Your task to perform on an android device: turn on translation in the chrome app Image 0: 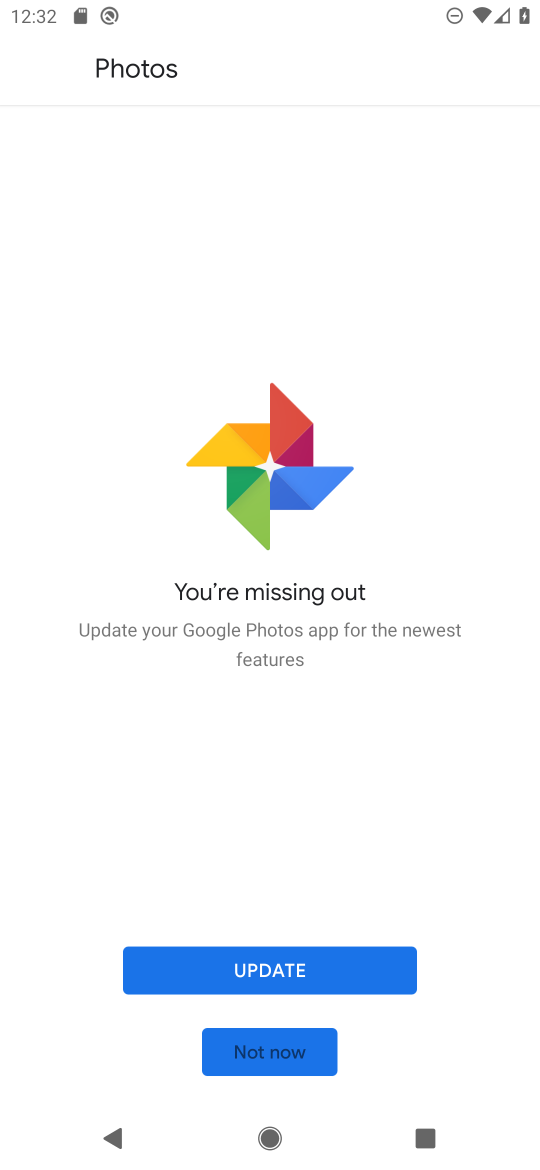
Step 0: press home button
Your task to perform on an android device: turn on translation in the chrome app Image 1: 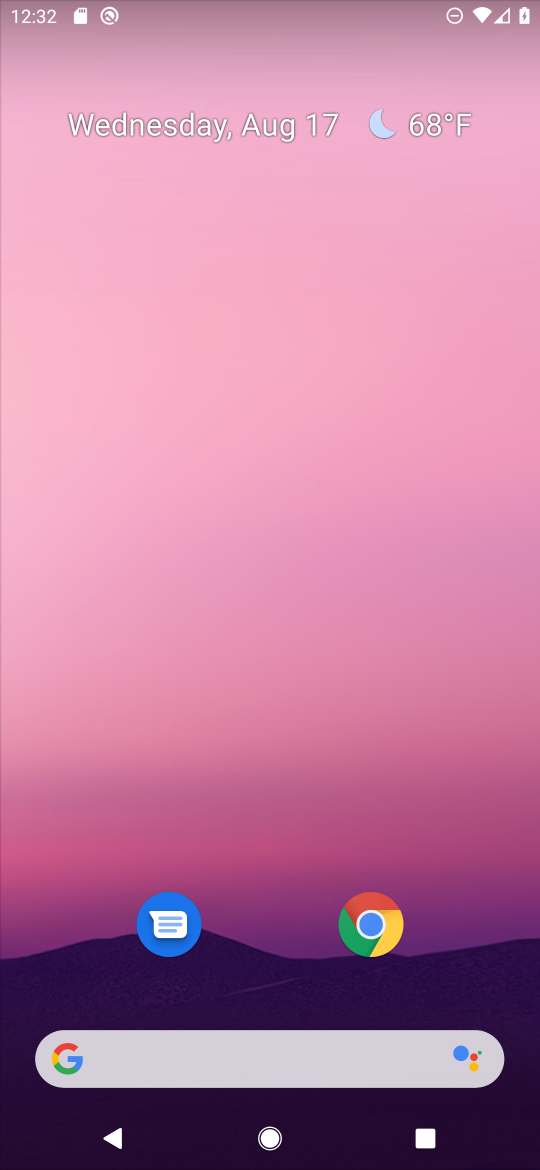
Step 1: click (362, 943)
Your task to perform on an android device: turn on translation in the chrome app Image 2: 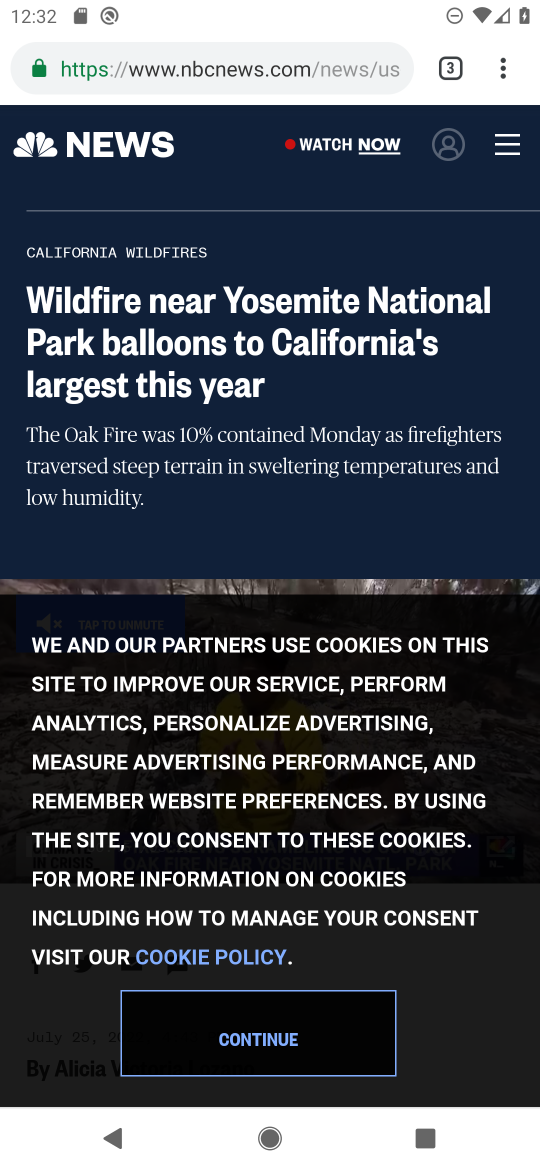
Step 2: click (510, 63)
Your task to perform on an android device: turn on translation in the chrome app Image 3: 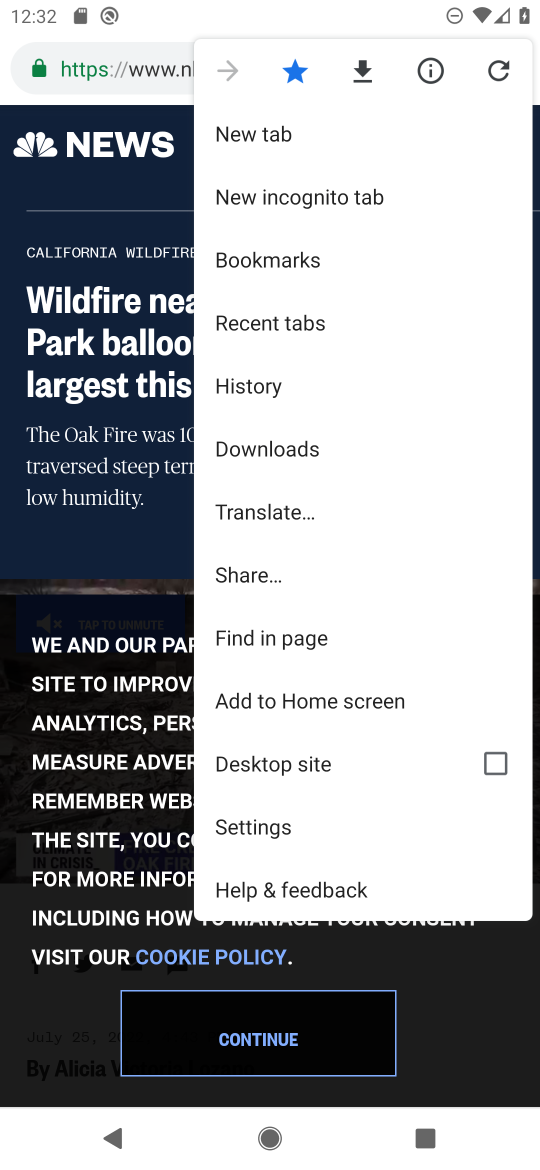
Step 3: click (319, 823)
Your task to perform on an android device: turn on translation in the chrome app Image 4: 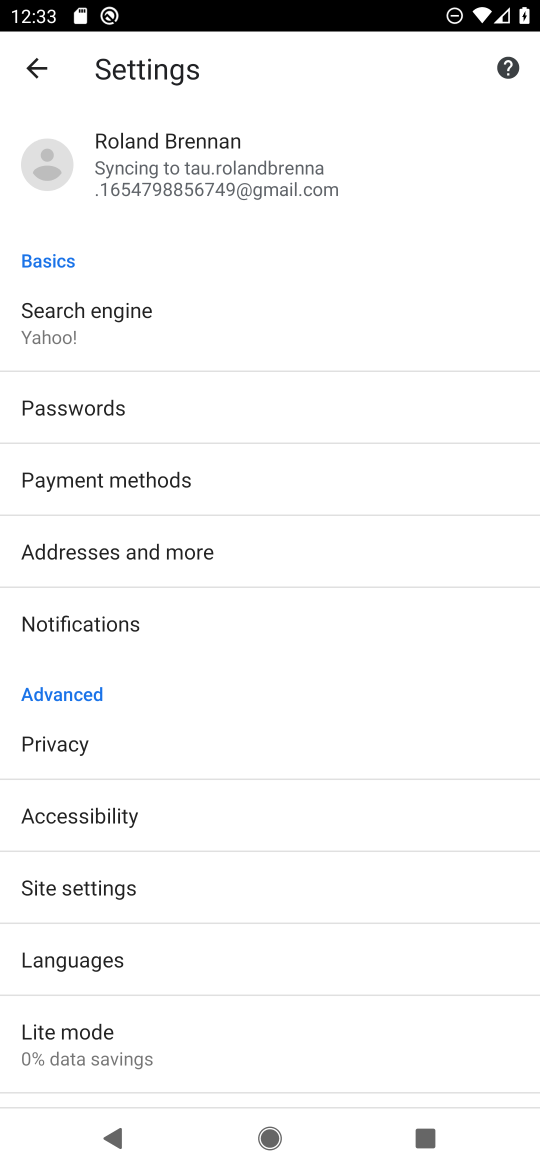
Step 4: click (233, 976)
Your task to perform on an android device: turn on translation in the chrome app Image 5: 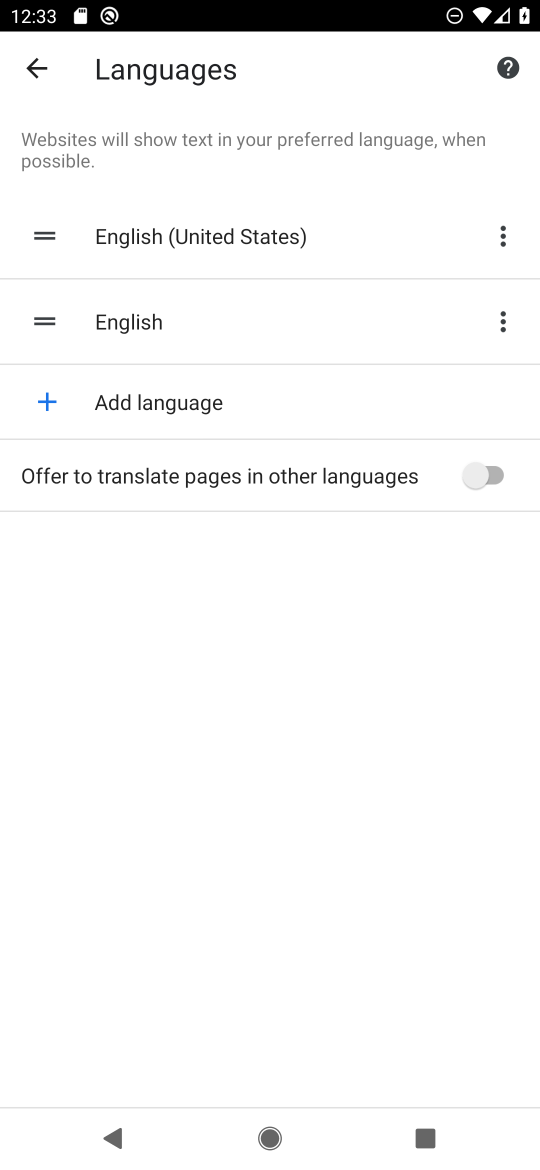
Step 5: click (497, 467)
Your task to perform on an android device: turn on translation in the chrome app Image 6: 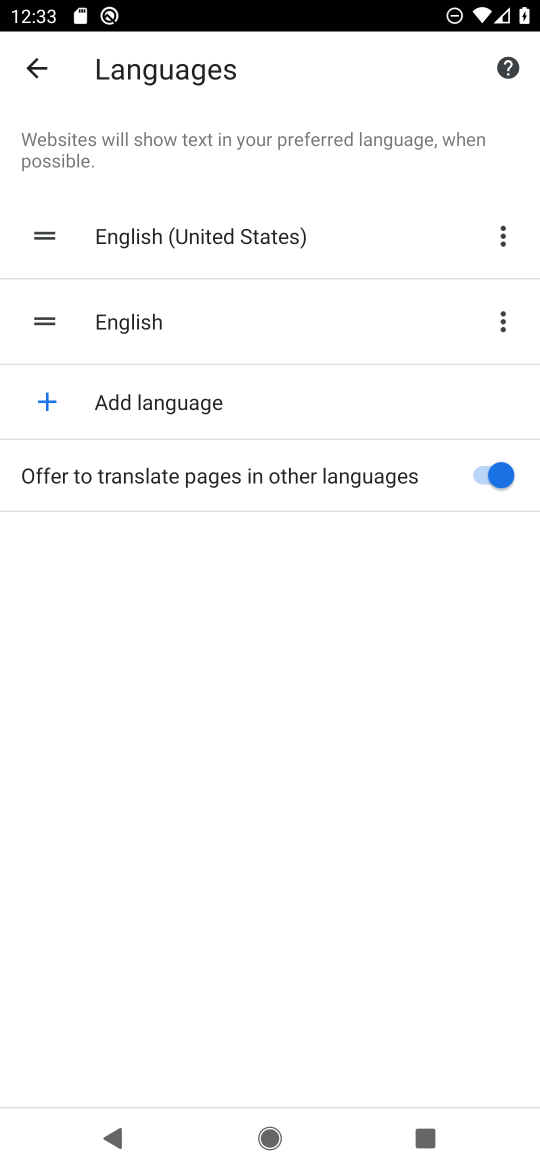
Step 6: task complete